Your task to perform on an android device: turn notification dots on Image 0: 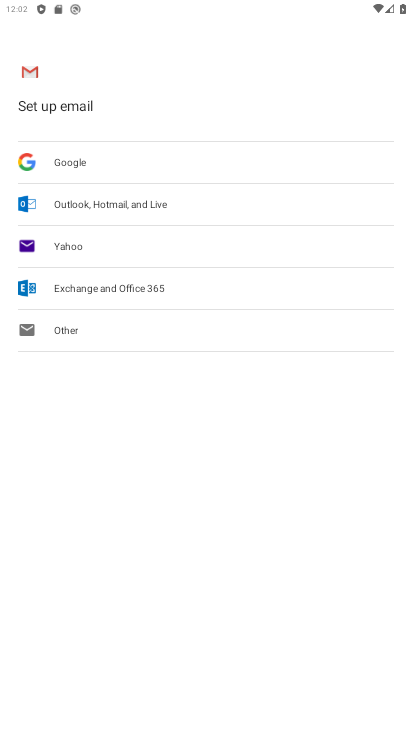
Step 0: press home button
Your task to perform on an android device: turn notification dots on Image 1: 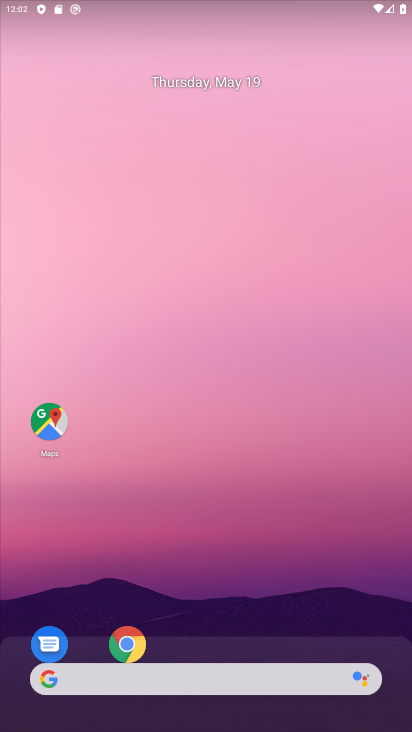
Step 1: drag from (349, 591) to (339, 14)
Your task to perform on an android device: turn notification dots on Image 2: 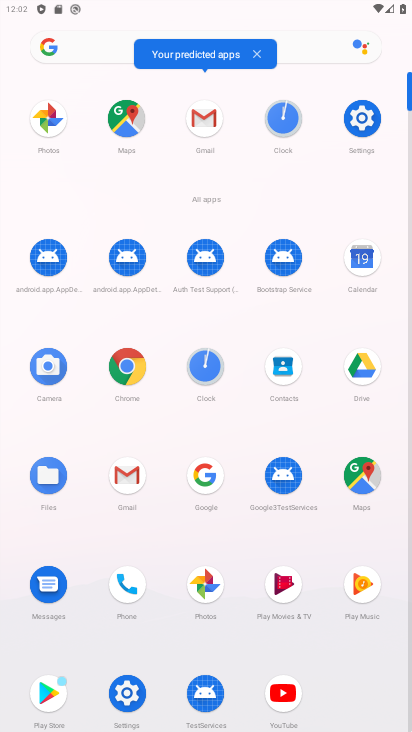
Step 2: click (364, 116)
Your task to perform on an android device: turn notification dots on Image 3: 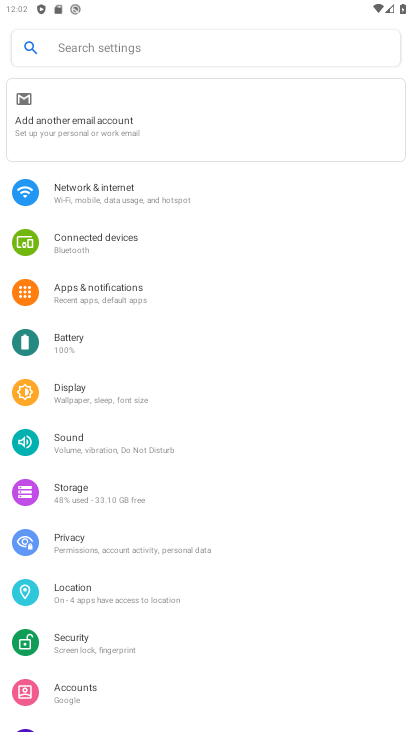
Step 3: click (122, 298)
Your task to perform on an android device: turn notification dots on Image 4: 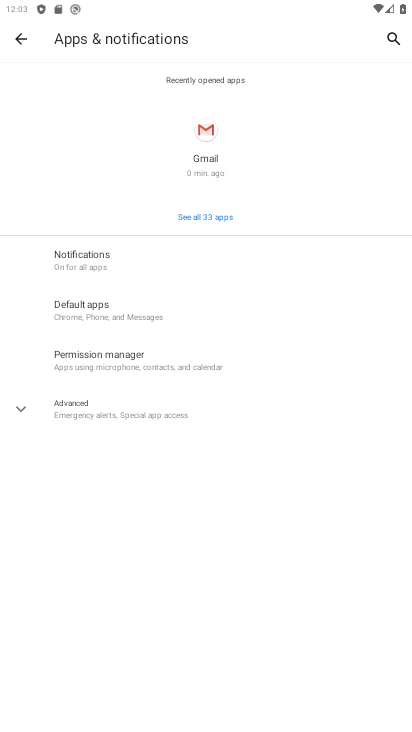
Step 4: click (126, 257)
Your task to perform on an android device: turn notification dots on Image 5: 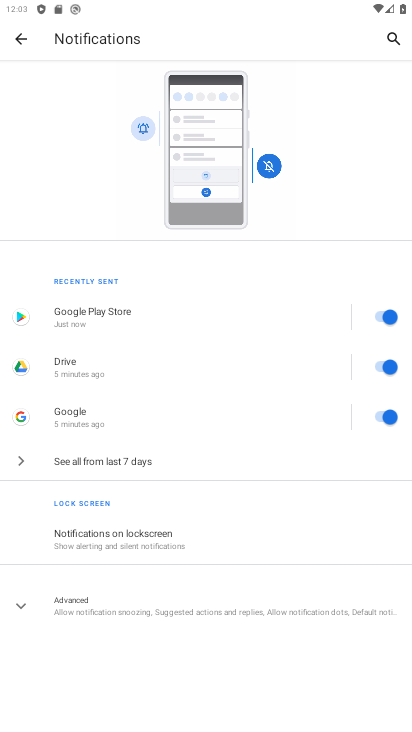
Step 5: click (227, 595)
Your task to perform on an android device: turn notification dots on Image 6: 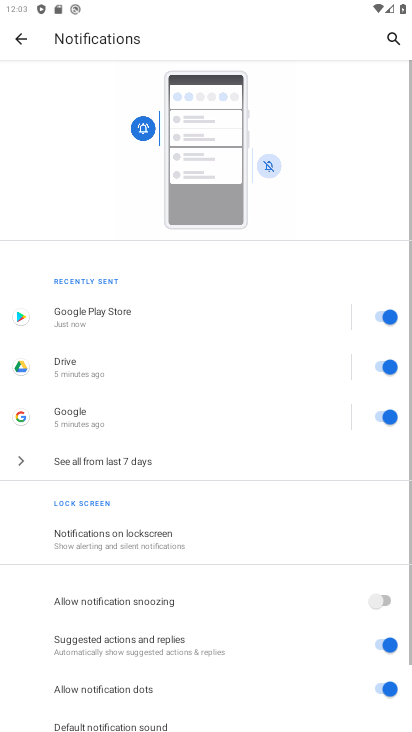
Step 6: task complete